Your task to perform on an android device: change the clock display to analog Image 0: 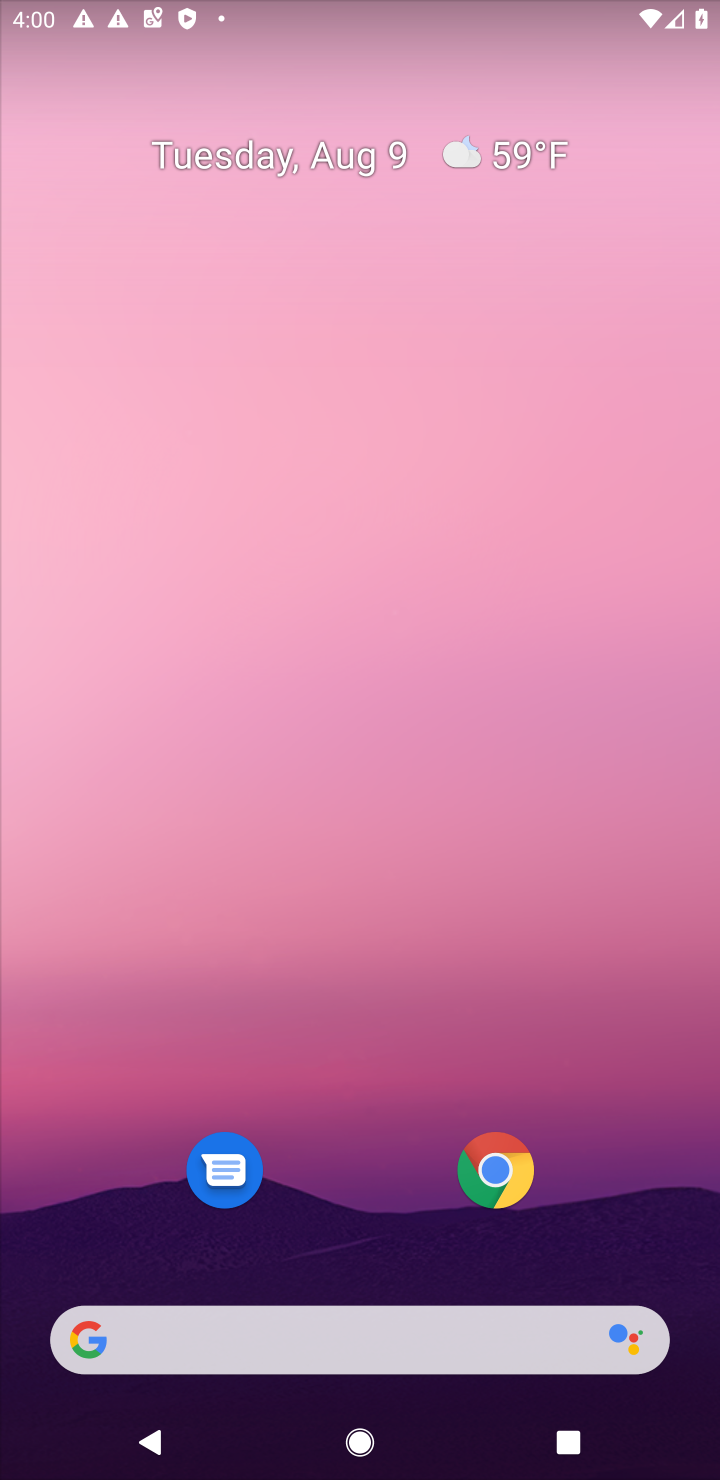
Step 0: press home button
Your task to perform on an android device: change the clock display to analog Image 1: 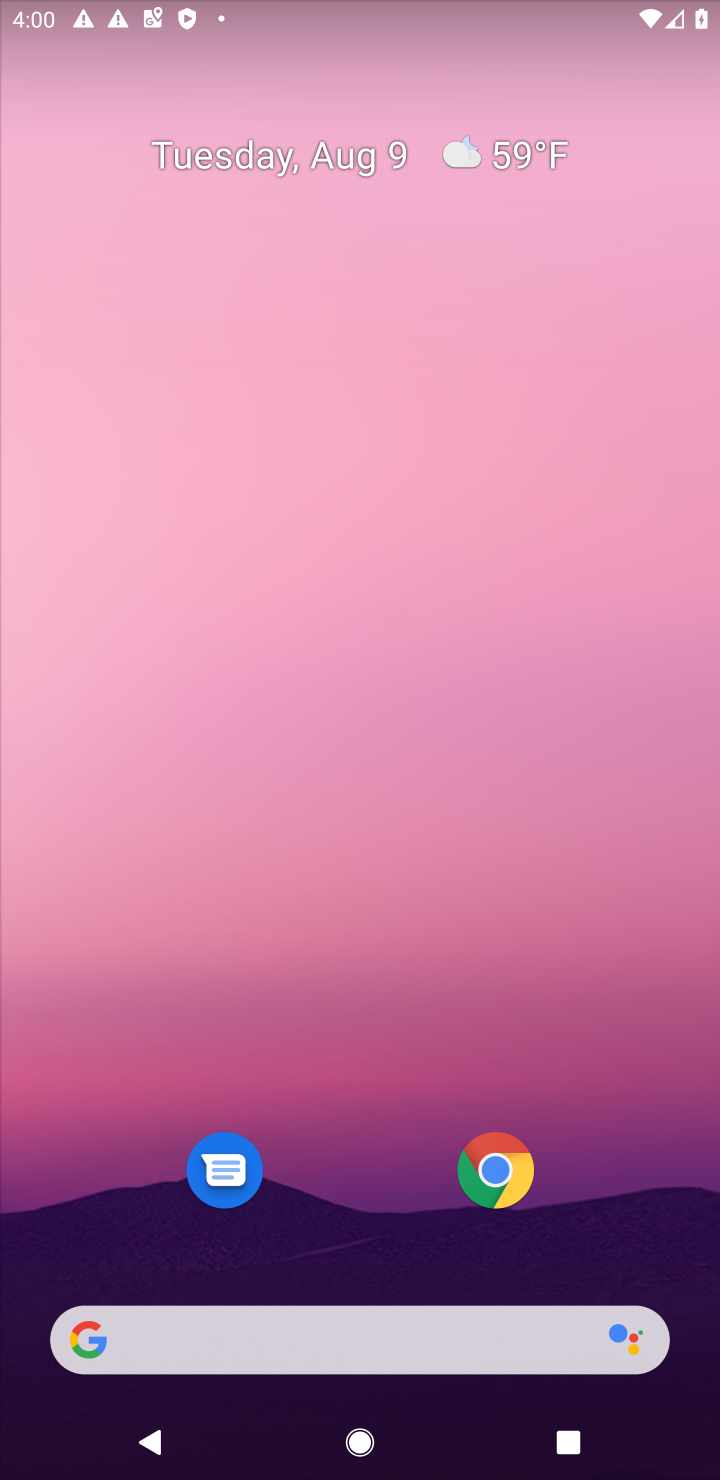
Step 1: drag from (383, 1223) to (440, 208)
Your task to perform on an android device: change the clock display to analog Image 2: 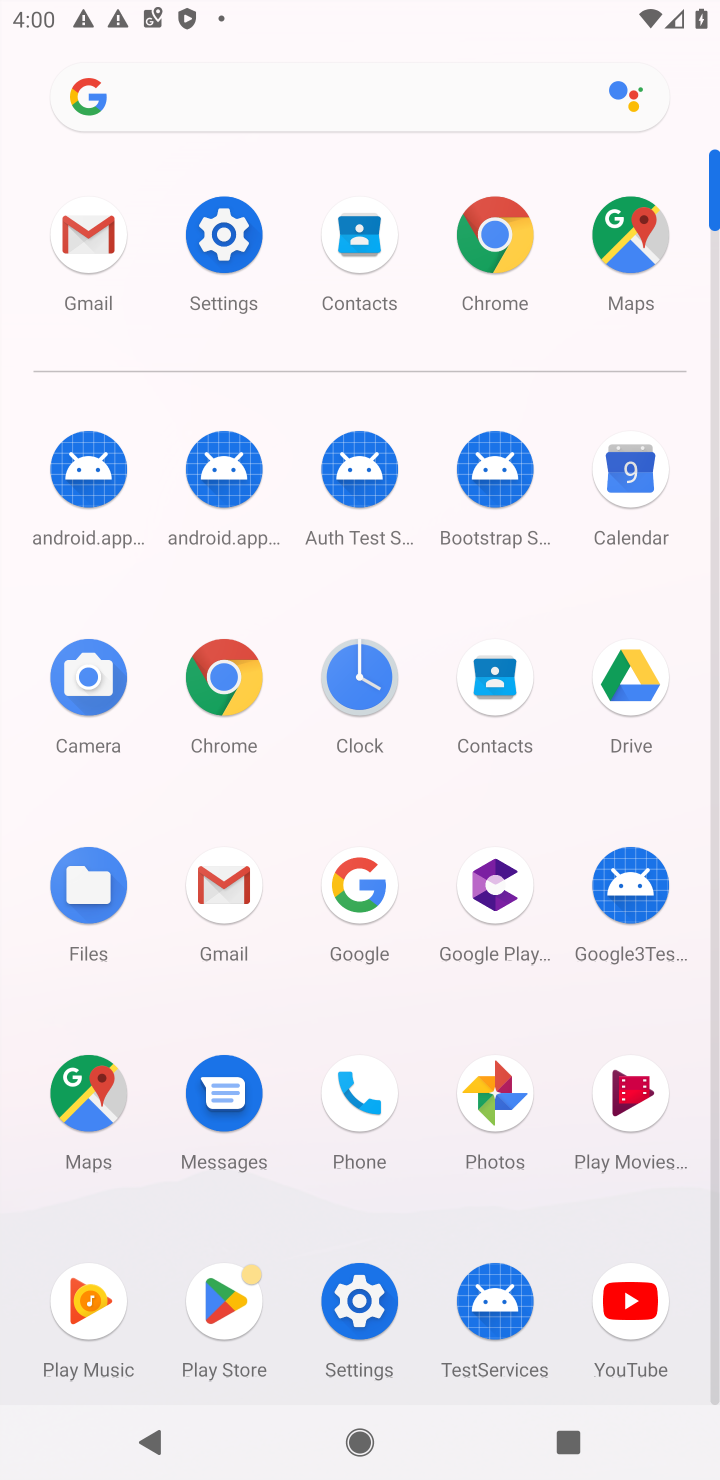
Step 2: click (355, 675)
Your task to perform on an android device: change the clock display to analog Image 3: 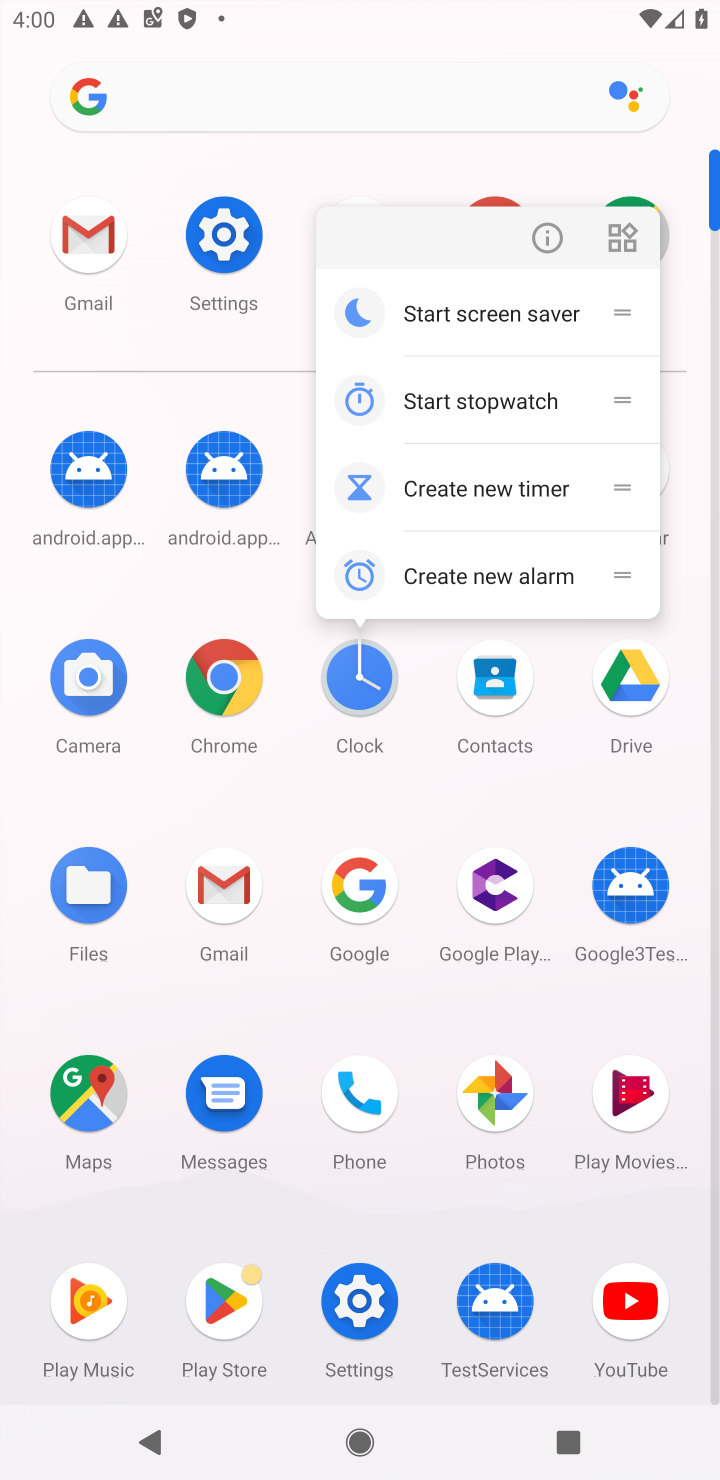
Step 3: click (355, 669)
Your task to perform on an android device: change the clock display to analog Image 4: 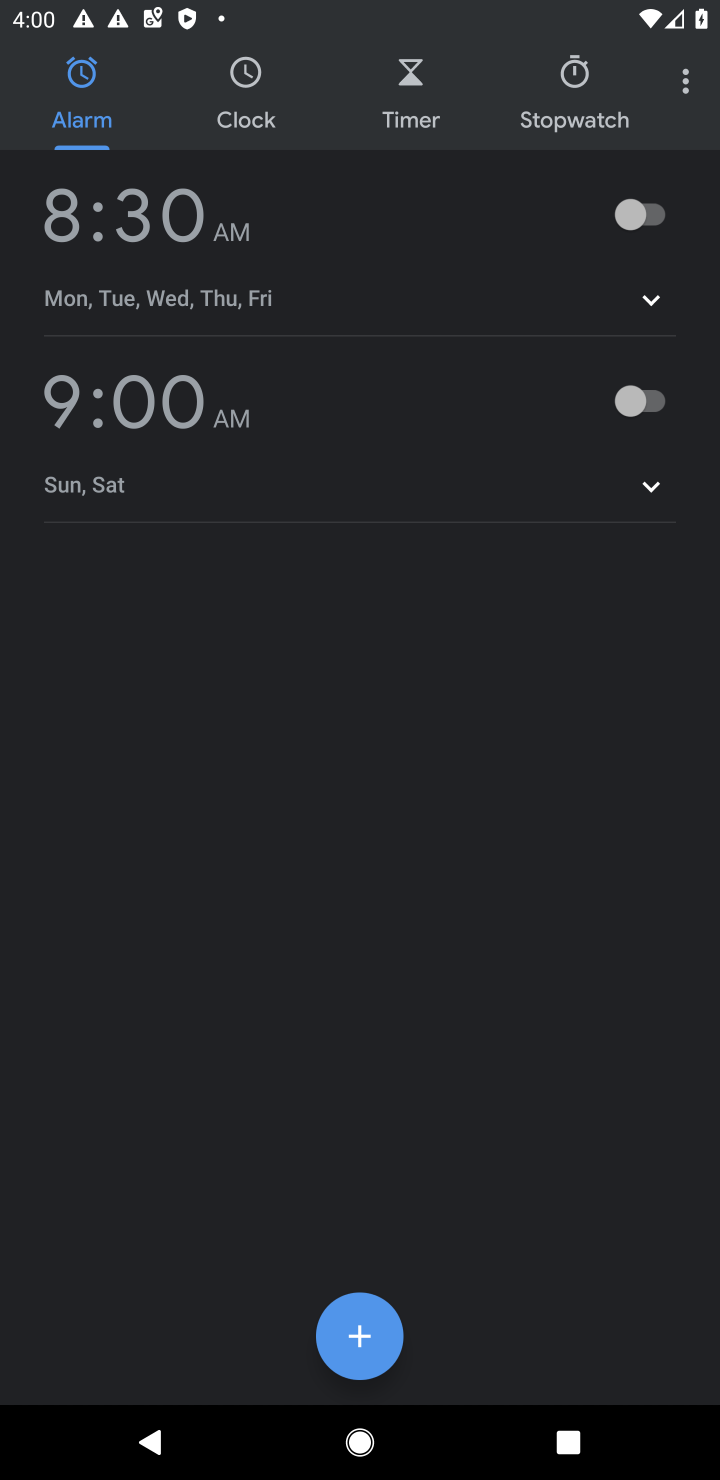
Step 4: click (672, 93)
Your task to perform on an android device: change the clock display to analog Image 5: 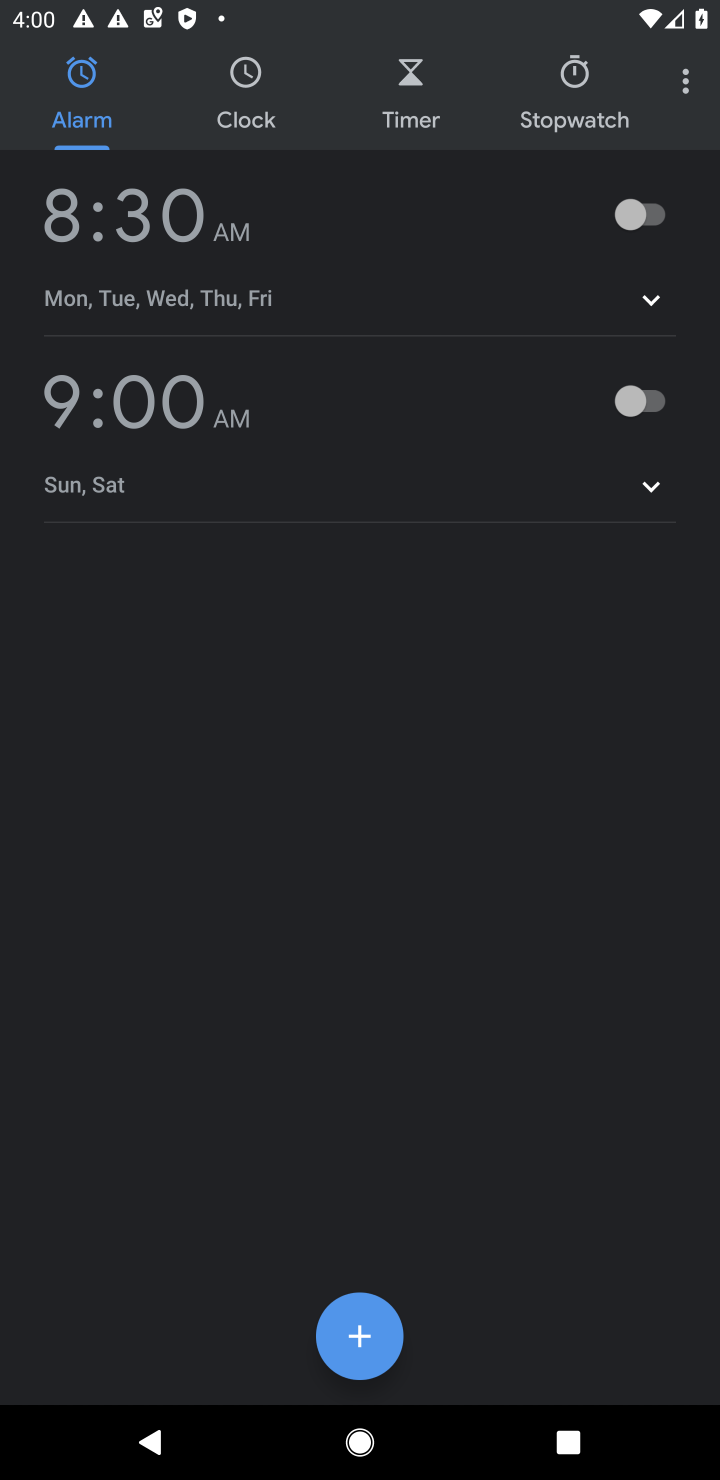
Step 5: click (684, 80)
Your task to perform on an android device: change the clock display to analog Image 6: 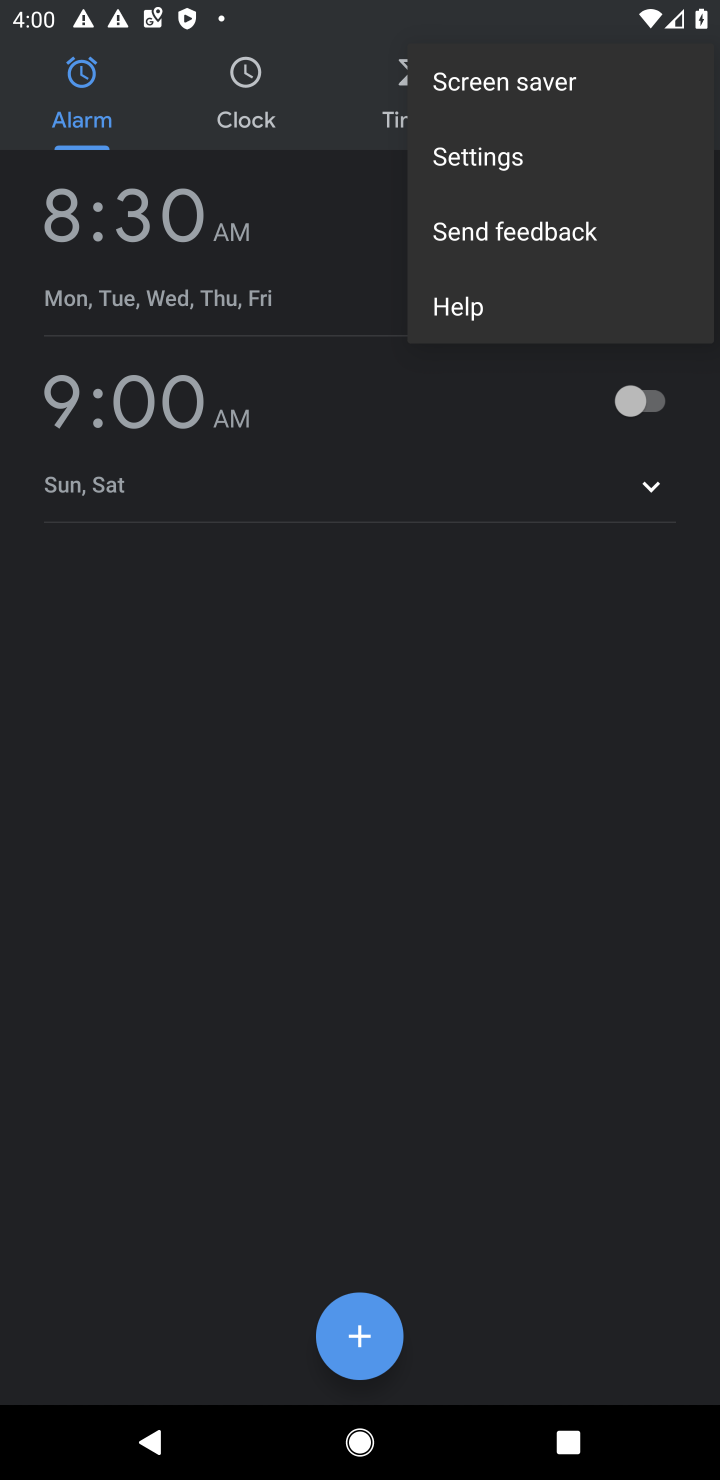
Step 6: click (511, 152)
Your task to perform on an android device: change the clock display to analog Image 7: 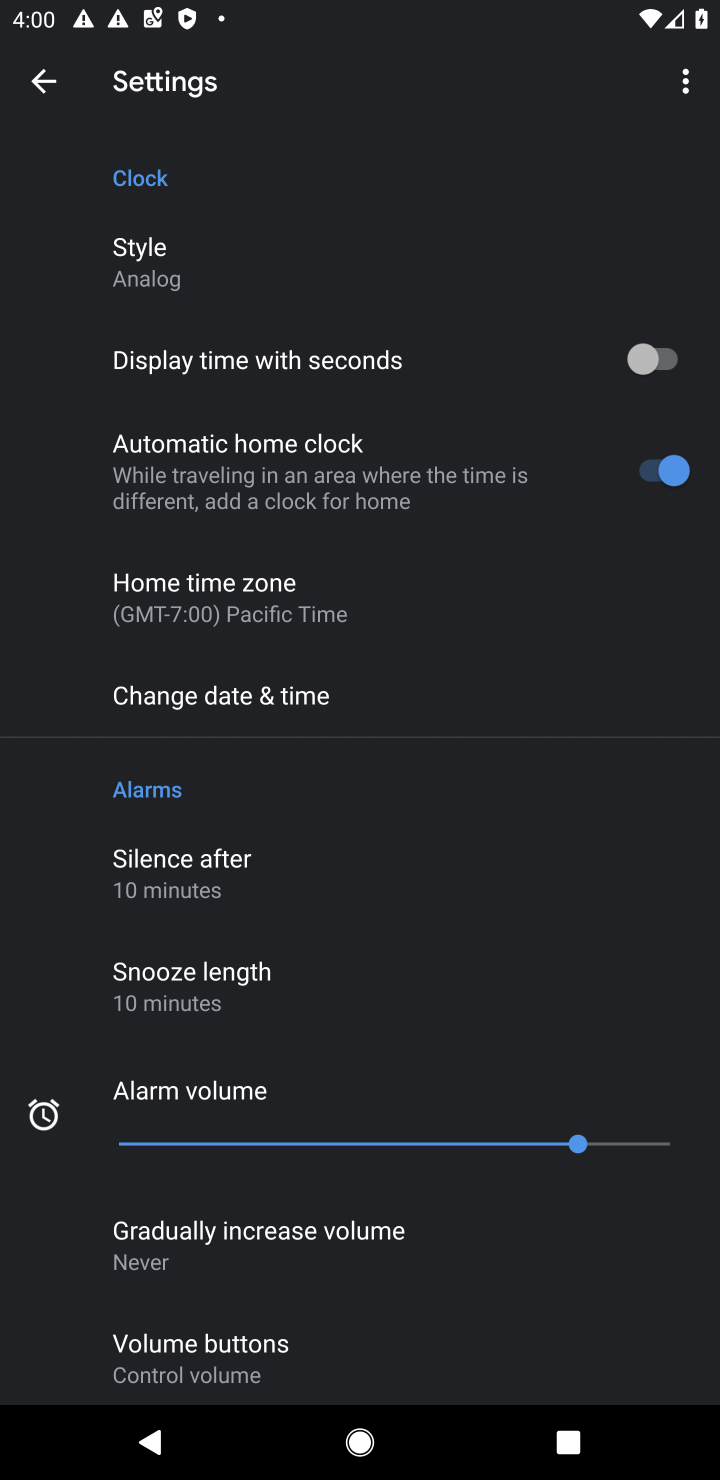
Step 7: click (164, 281)
Your task to perform on an android device: change the clock display to analog Image 8: 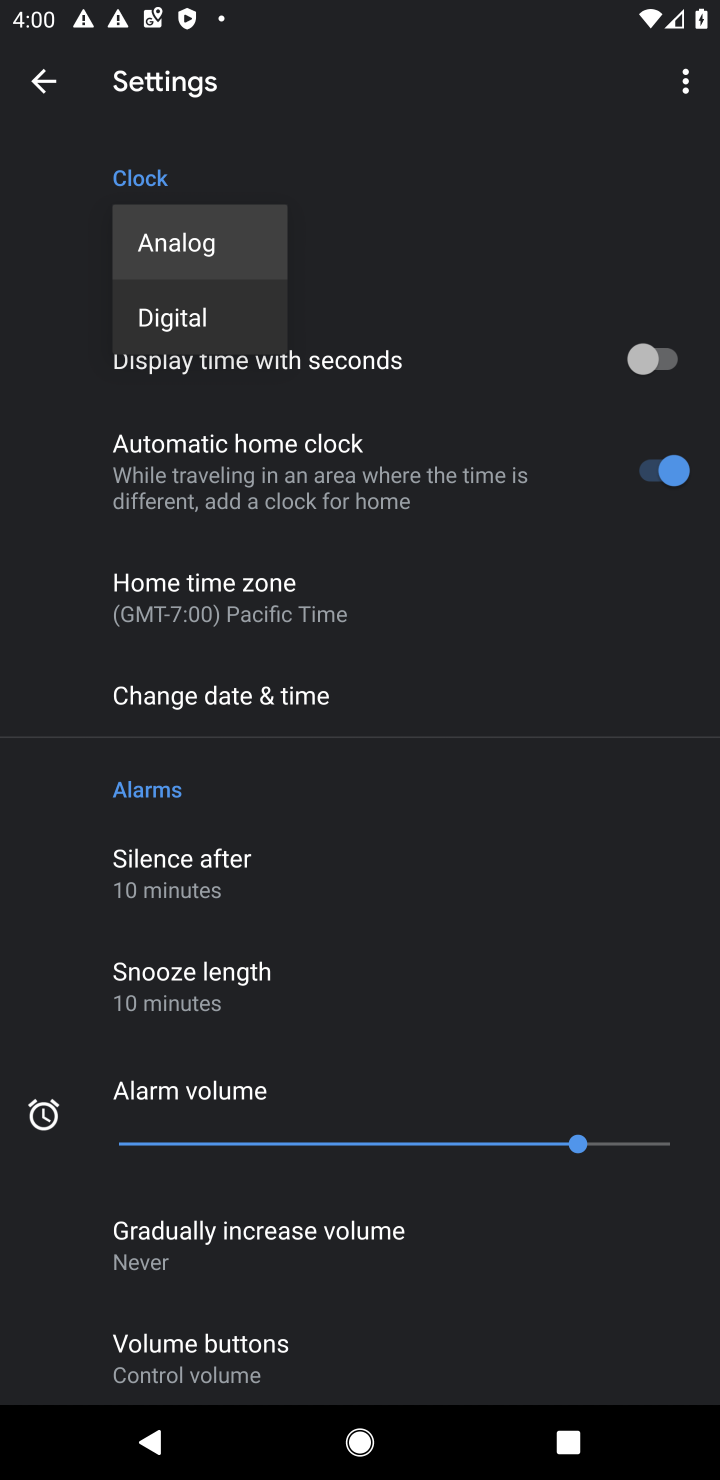
Step 8: click (146, 316)
Your task to perform on an android device: change the clock display to analog Image 9: 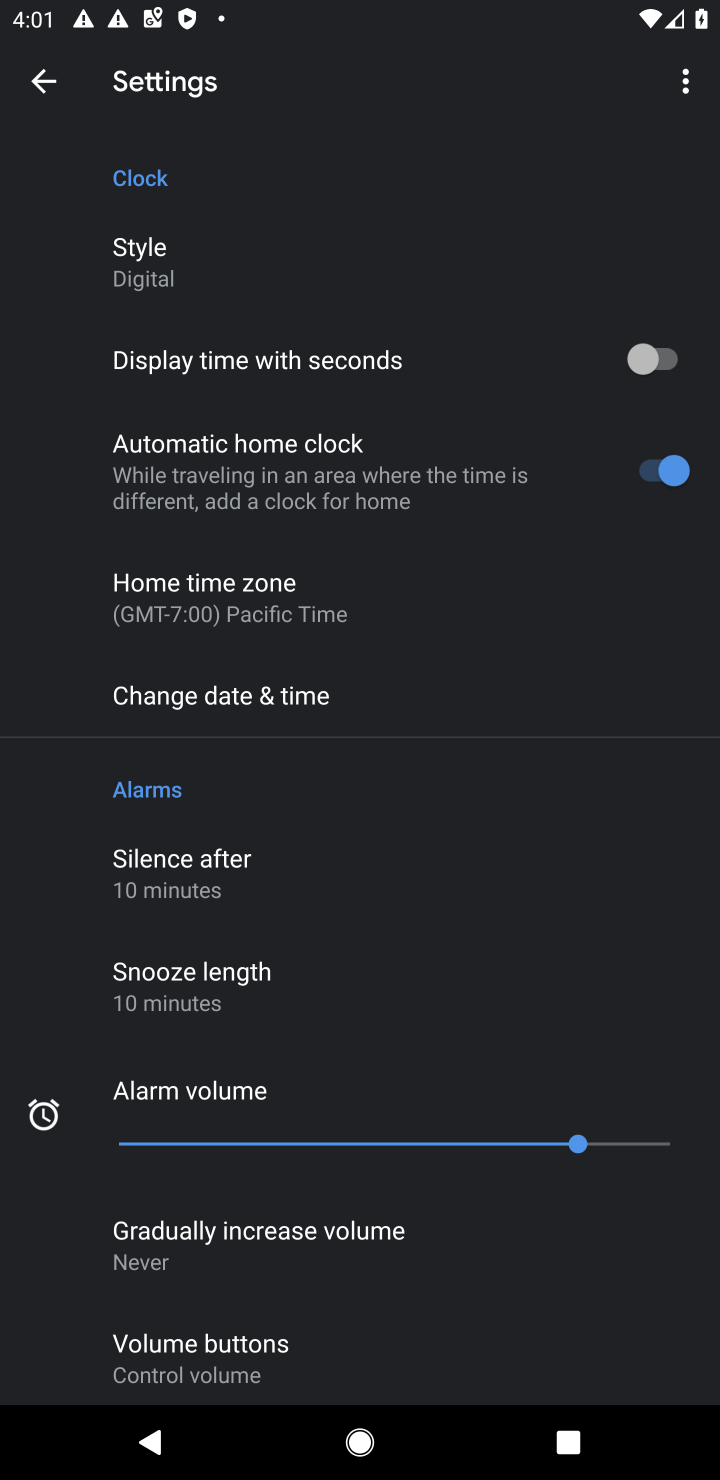
Step 9: click (195, 262)
Your task to perform on an android device: change the clock display to analog Image 10: 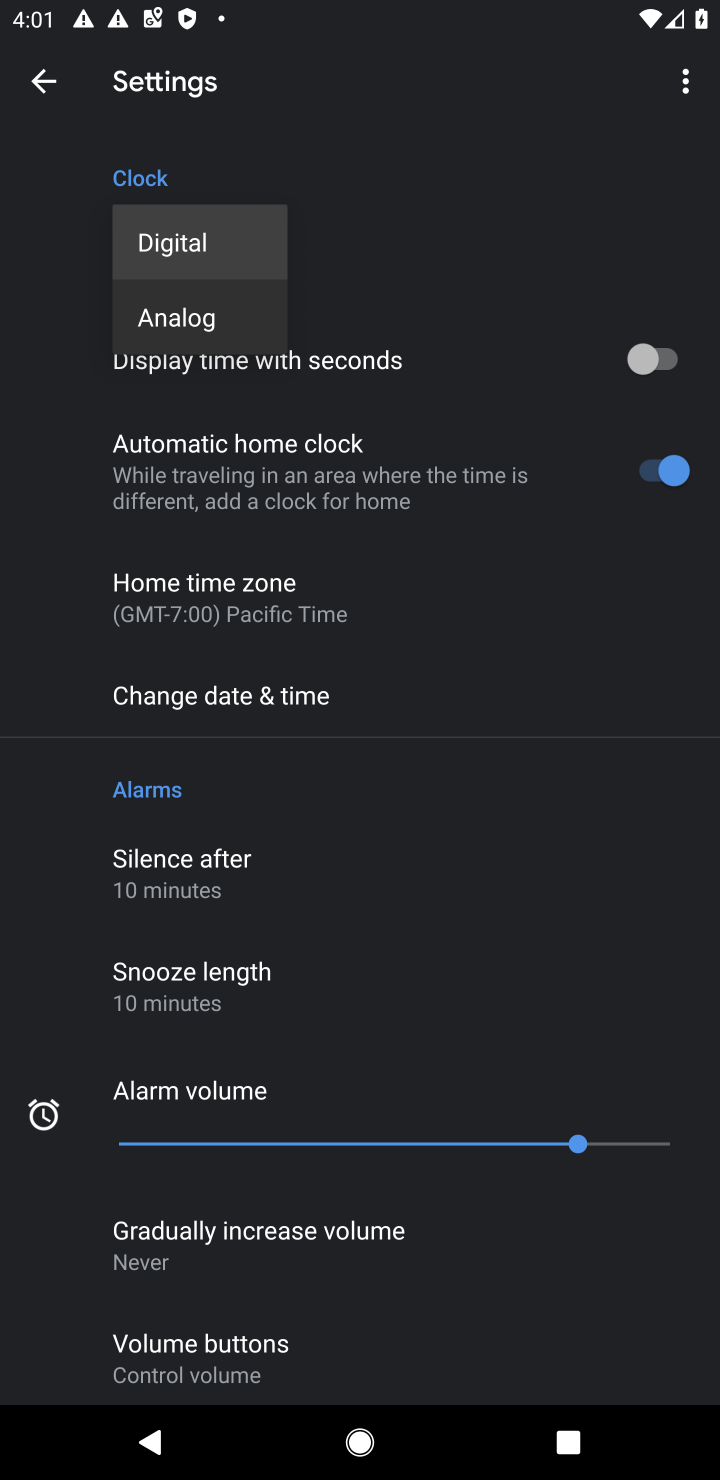
Step 10: click (205, 314)
Your task to perform on an android device: change the clock display to analog Image 11: 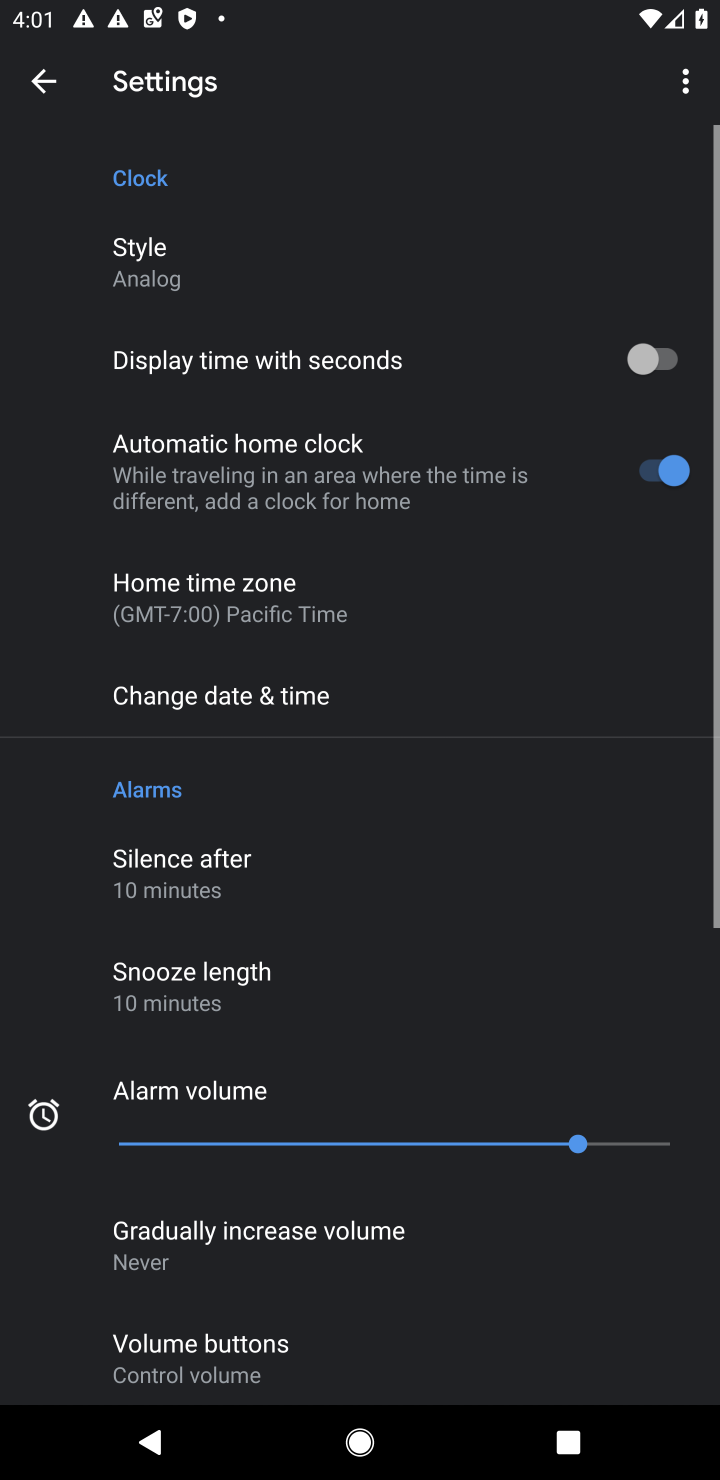
Step 11: task complete